Your task to perform on an android device: Find coffee shops on Maps Image 0: 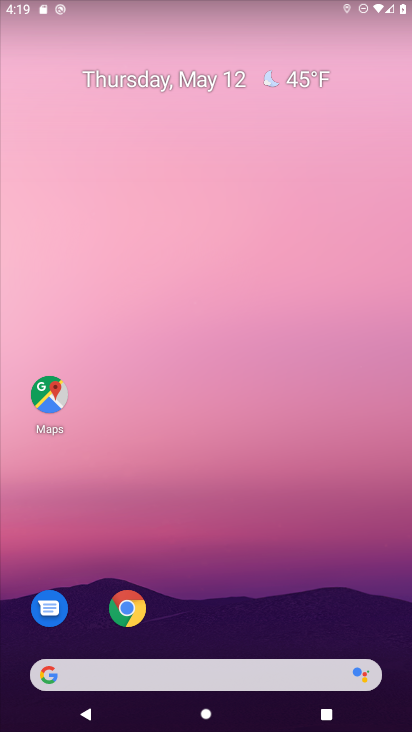
Step 0: click (37, 410)
Your task to perform on an android device: Find coffee shops on Maps Image 1: 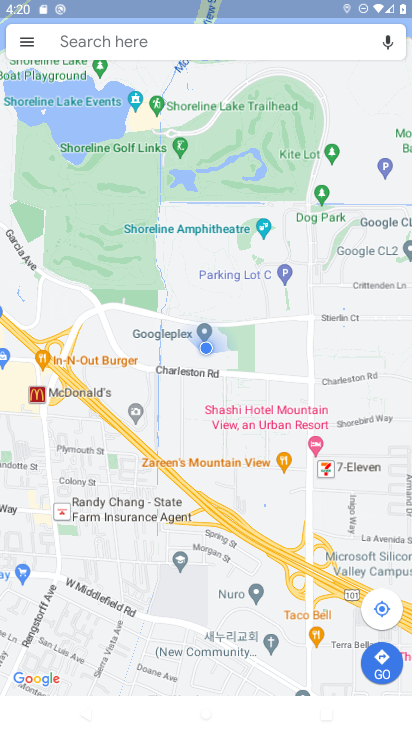
Step 1: click (50, 410)
Your task to perform on an android device: Find coffee shops on Maps Image 2: 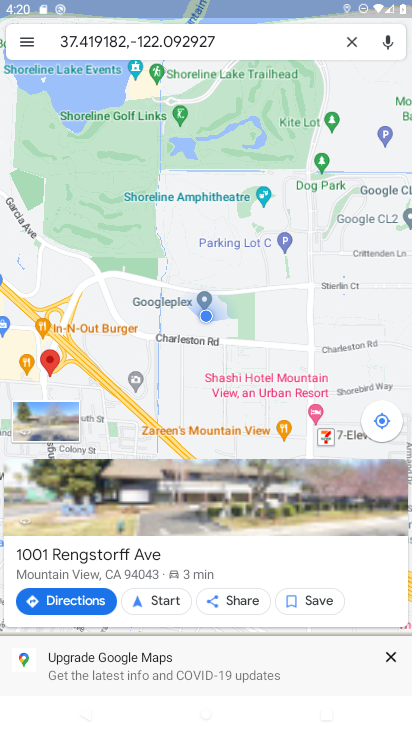
Step 2: click (355, 40)
Your task to perform on an android device: Find coffee shops on Maps Image 3: 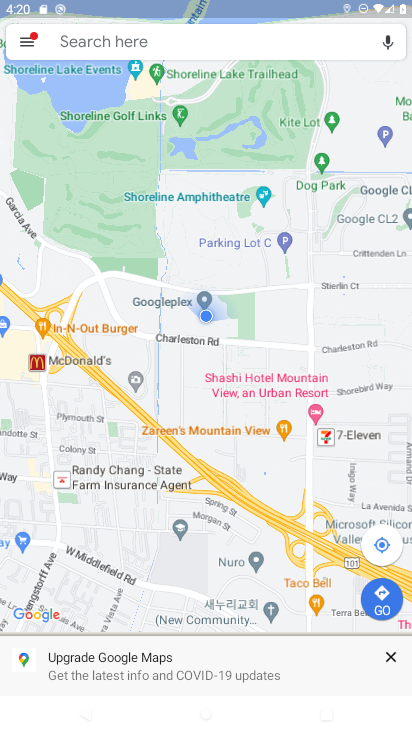
Step 3: click (300, 40)
Your task to perform on an android device: Find coffee shops on Maps Image 4: 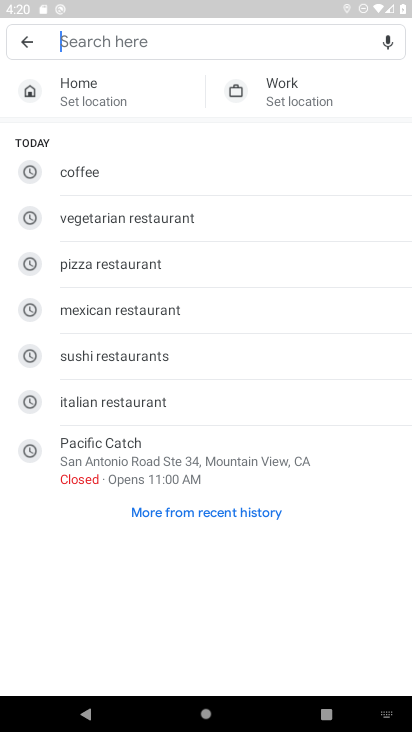
Step 4: click (166, 173)
Your task to perform on an android device: Find coffee shops on Maps Image 5: 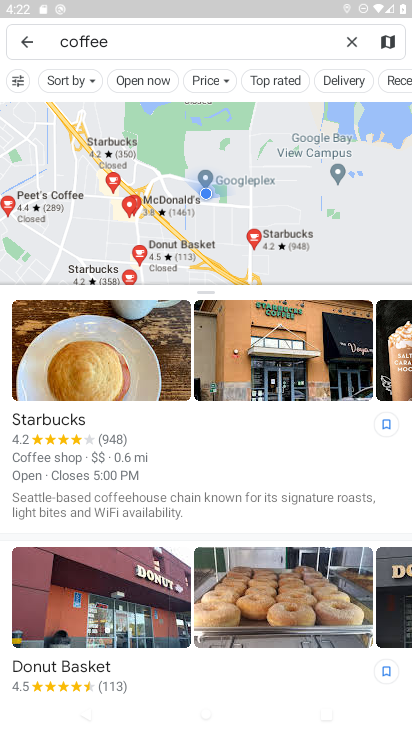
Step 5: task complete